Your task to perform on an android device: turn on notifications settings in the gmail app Image 0: 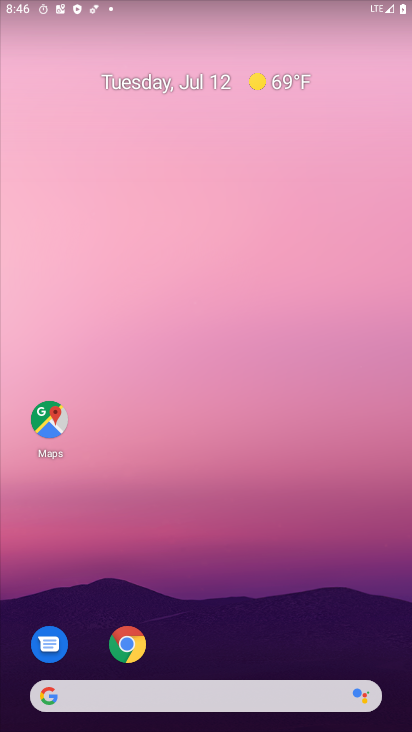
Step 0: press home button
Your task to perform on an android device: turn on notifications settings in the gmail app Image 1: 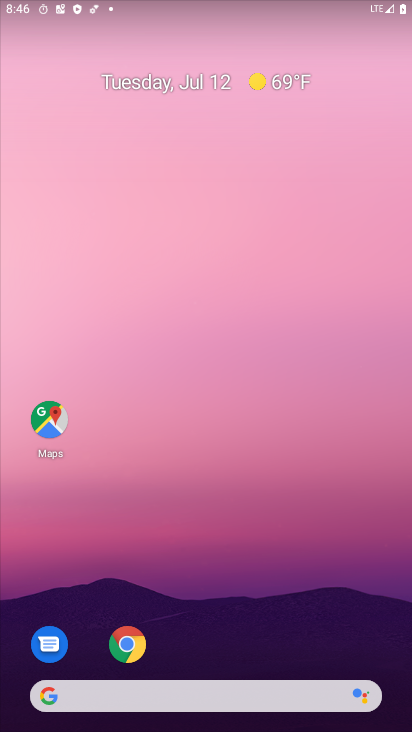
Step 1: click (223, 122)
Your task to perform on an android device: turn on notifications settings in the gmail app Image 2: 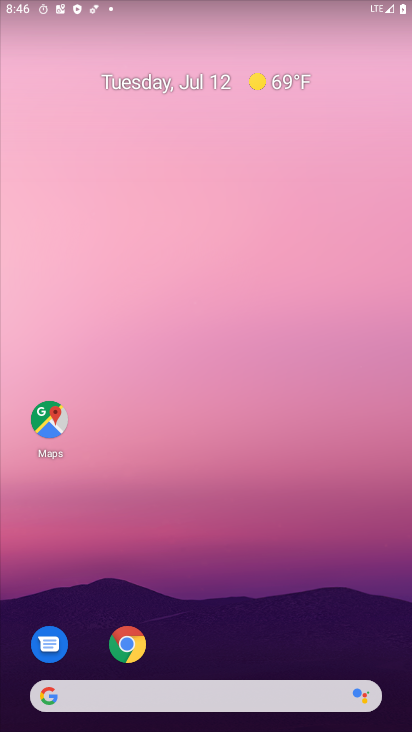
Step 2: drag from (225, 663) to (235, 82)
Your task to perform on an android device: turn on notifications settings in the gmail app Image 3: 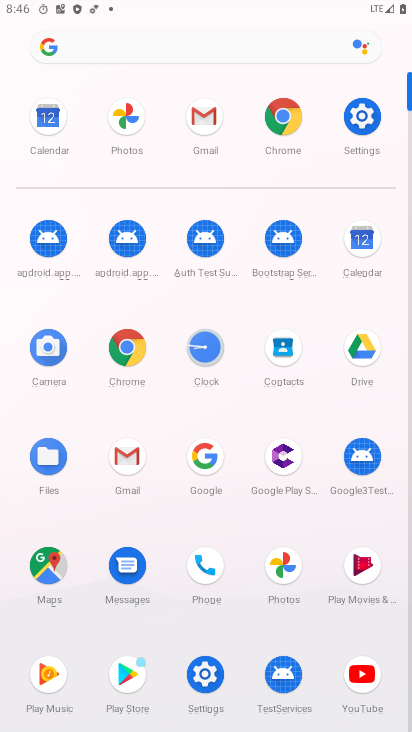
Step 3: click (359, 111)
Your task to perform on an android device: turn on notifications settings in the gmail app Image 4: 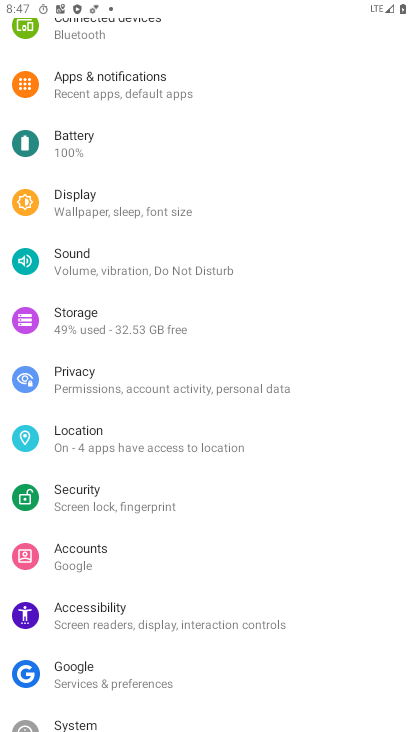
Step 4: click (178, 76)
Your task to perform on an android device: turn on notifications settings in the gmail app Image 5: 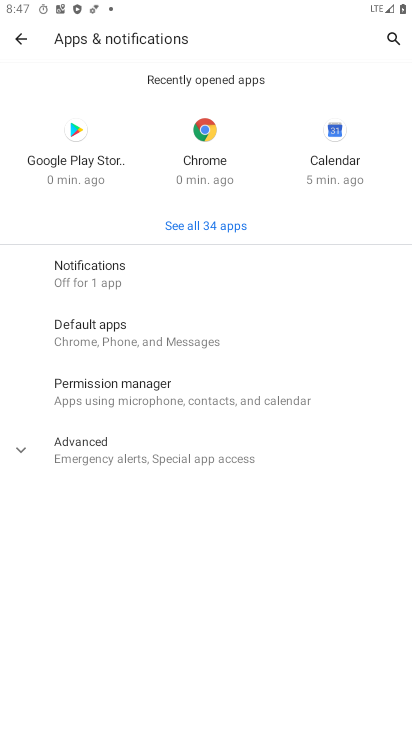
Step 5: click (142, 271)
Your task to perform on an android device: turn on notifications settings in the gmail app Image 6: 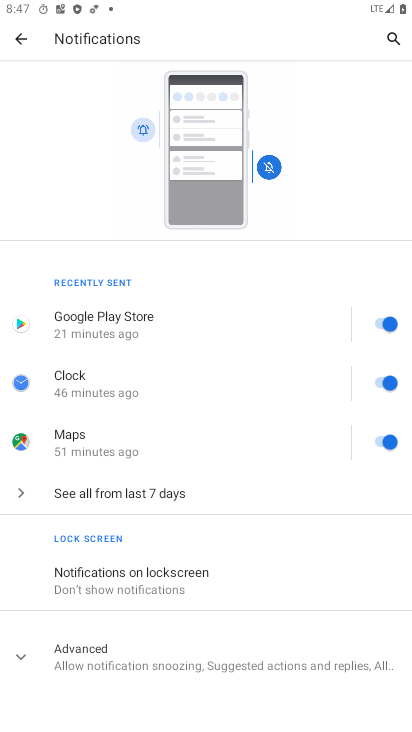
Step 6: click (28, 653)
Your task to perform on an android device: turn on notifications settings in the gmail app Image 7: 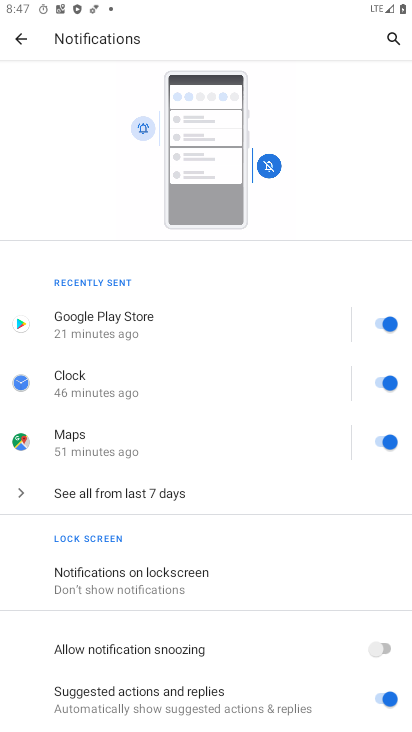
Step 7: task complete